Your task to perform on an android device: Do I have any events tomorrow? Image 0: 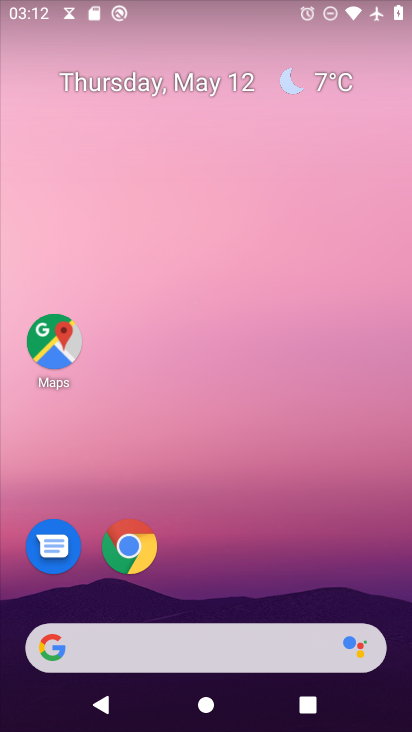
Step 0: click (318, 78)
Your task to perform on an android device: Do I have any events tomorrow? Image 1: 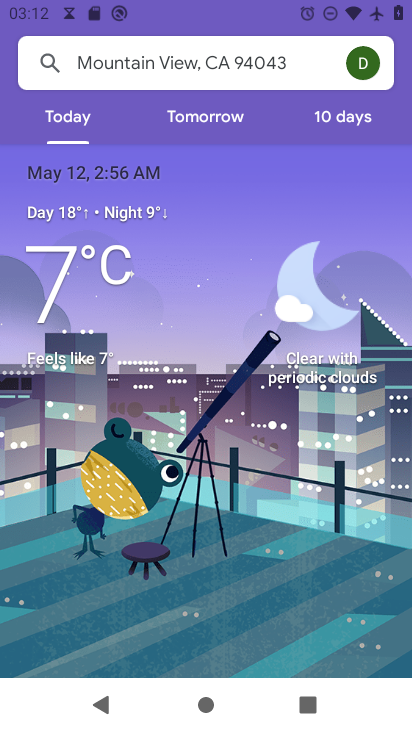
Step 1: click (218, 119)
Your task to perform on an android device: Do I have any events tomorrow? Image 2: 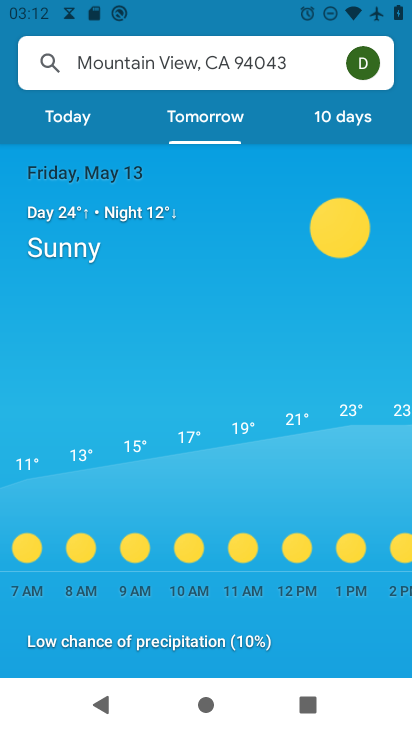
Step 2: task complete